Your task to perform on an android device: turn pop-ups off in chrome Image 0: 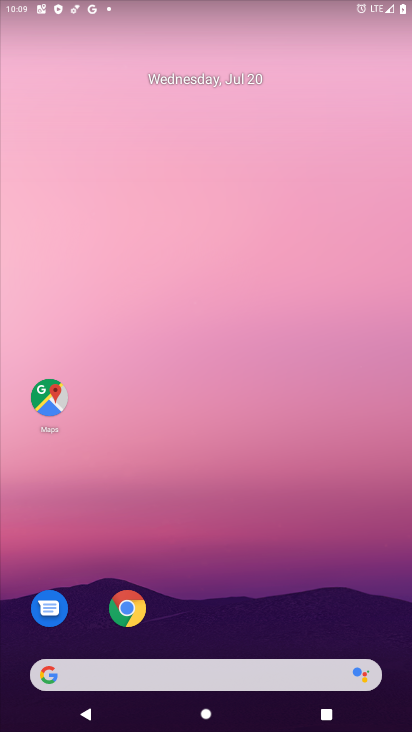
Step 0: click (126, 603)
Your task to perform on an android device: turn pop-ups off in chrome Image 1: 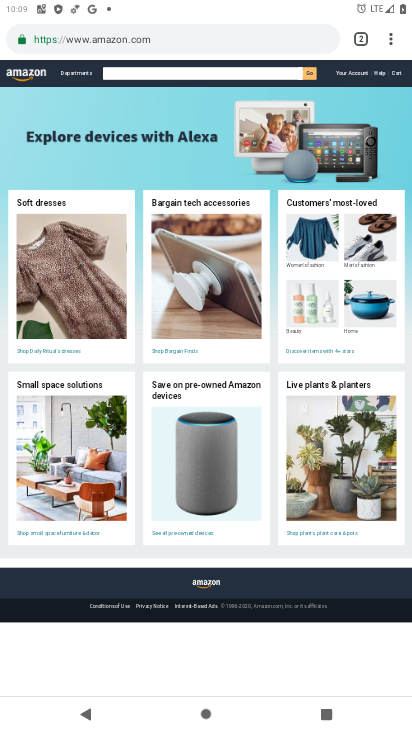
Step 1: click (389, 39)
Your task to perform on an android device: turn pop-ups off in chrome Image 2: 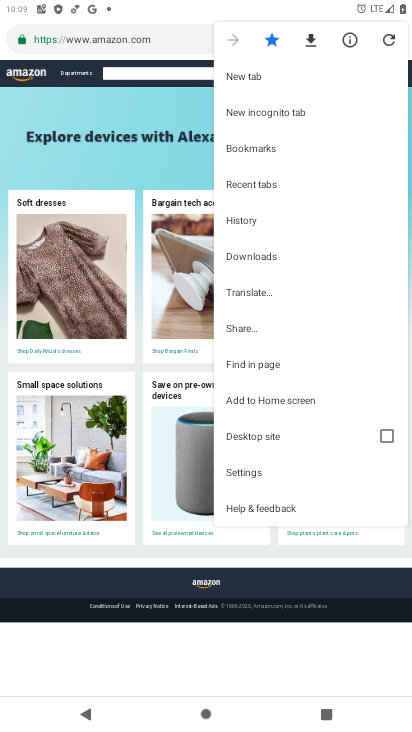
Step 2: click (267, 470)
Your task to perform on an android device: turn pop-ups off in chrome Image 3: 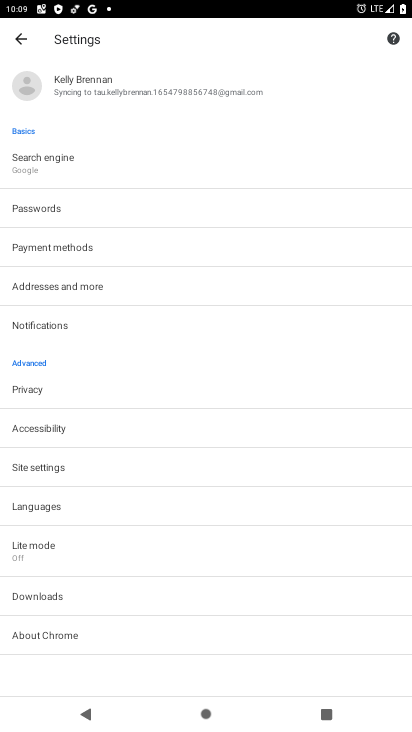
Step 3: click (73, 464)
Your task to perform on an android device: turn pop-ups off in chrome Image 4: 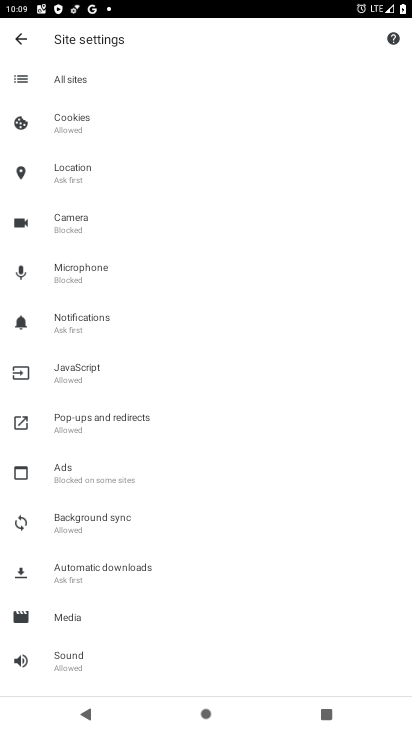
Step 4: click (100, 423)
Your task to perform on an android device: turn pop-ups off in chrome Image 5: 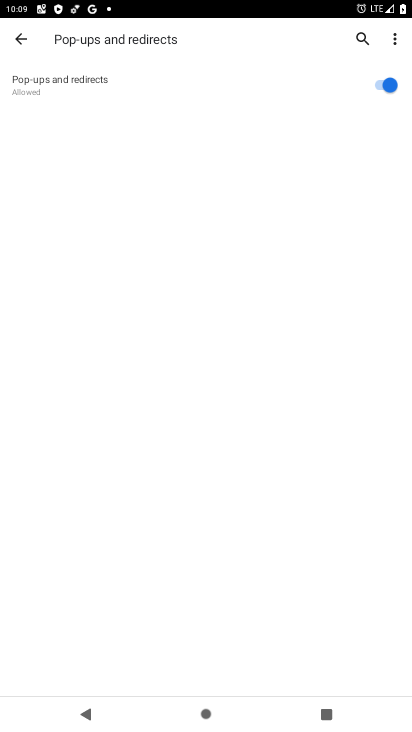
Step 5: click (380, 80)
Your task to perform on an android device: turn pop-ups off in chrome Image 6: 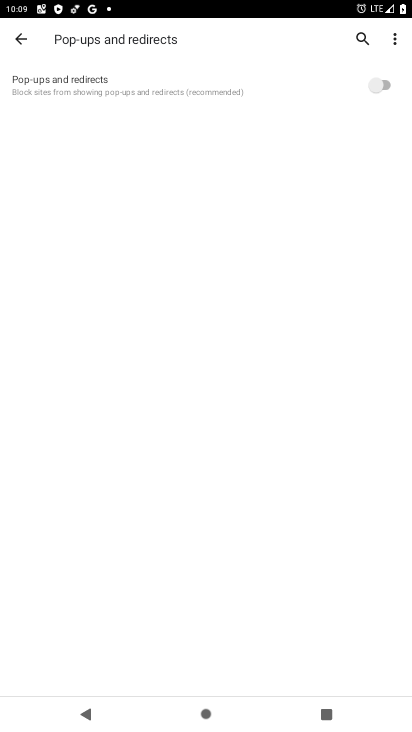
Step 6: task complete